Your task to perform on an android device: Search for Mexican restaurants on Maps Image 0: 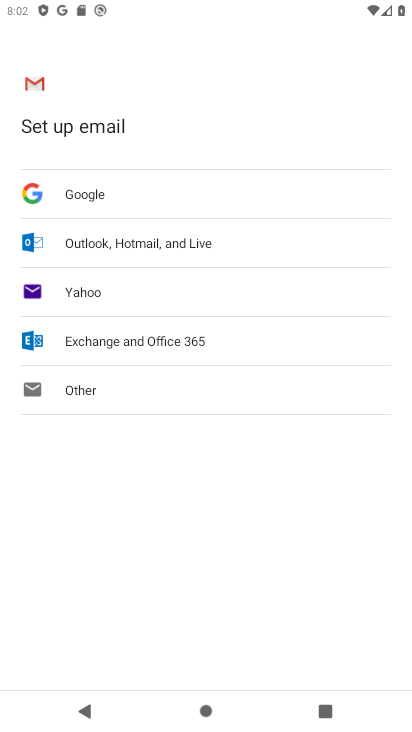
Step 0: press home button
Your task to perform on an android device: Search for Mexican restaurants on Maps Image 1: 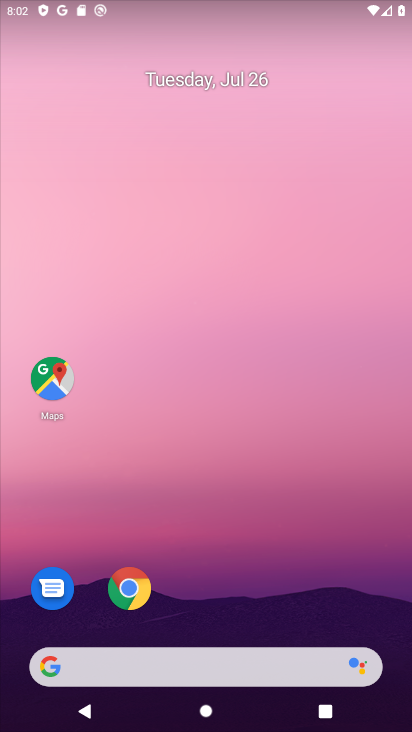
Step 1: click (39, 365)
Your task to perform on an android device: Search for Mexican restaurants on Maps Image 2: 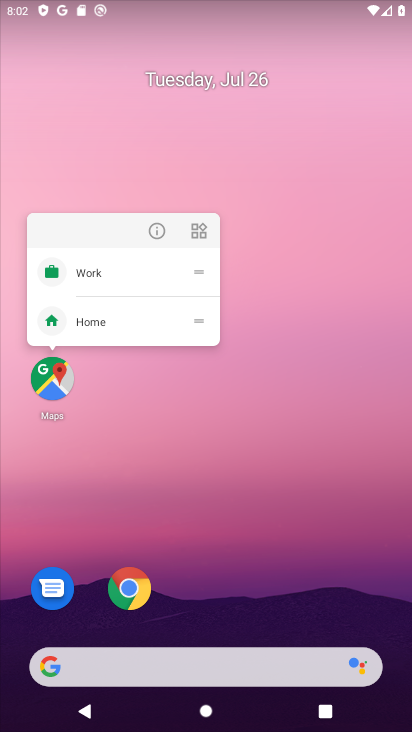
Step 2: click (39, 365)
Your task to perform on an android device: Search for Mexican restaurants on Maps Image 3: 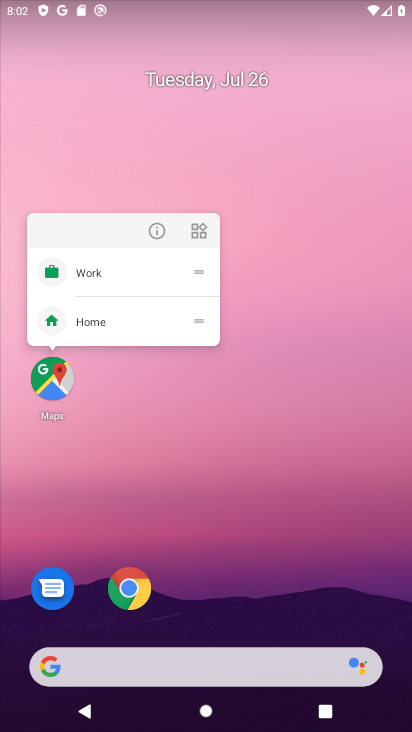
Step 3: click (46, 386)
Your task to perform on an android device: Search for Mexican restaurants on Maps Image 4: 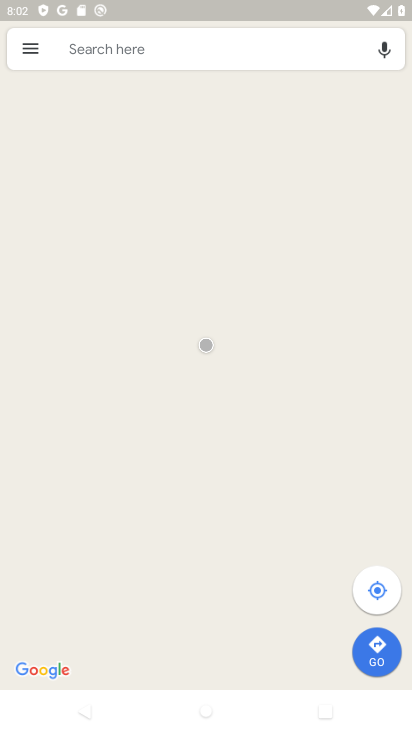
Step 4: click (99, 45)
Your task to perform on an android device: Search for Mexican restaurants on Maps Image 5: 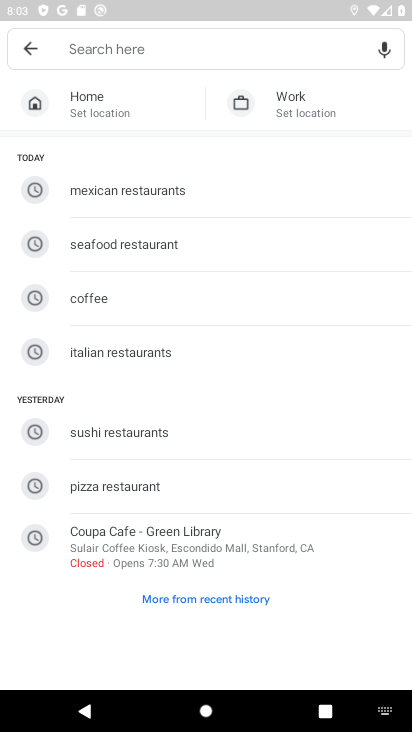
Step 5: type "Mexican restaurants"
Your task to perform on an android device: Search for Mexican restaurants on Maps Image 6: 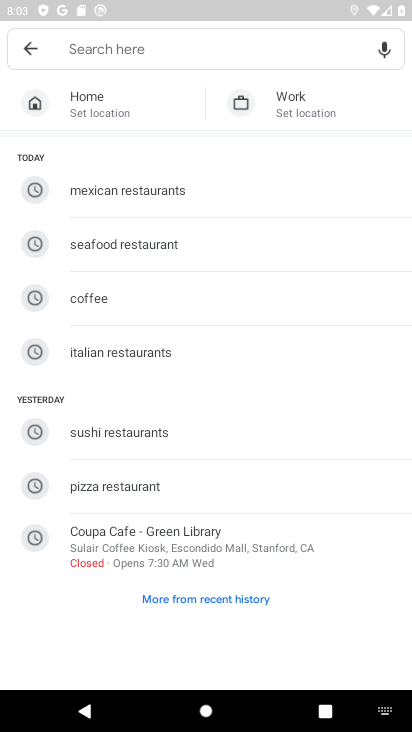
Step 6: click (85, 44)
Your task to perform on an android device: Search for Mexican restaurants on Maps Image 7: 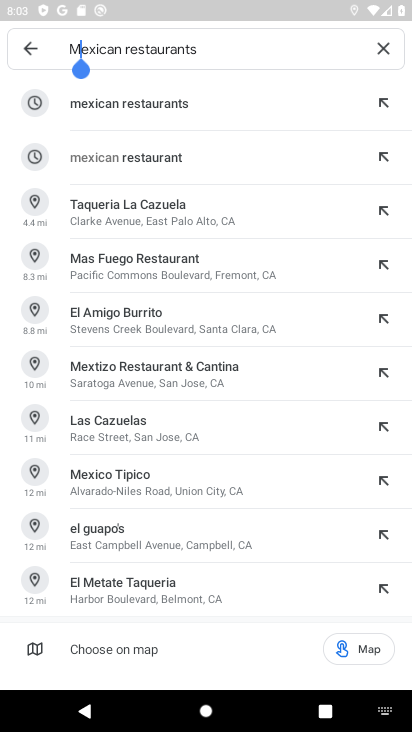
Step 7: click (100, 96)
Your task to perform on an android device: Search for Mexican restaurants on Maps Image 8: 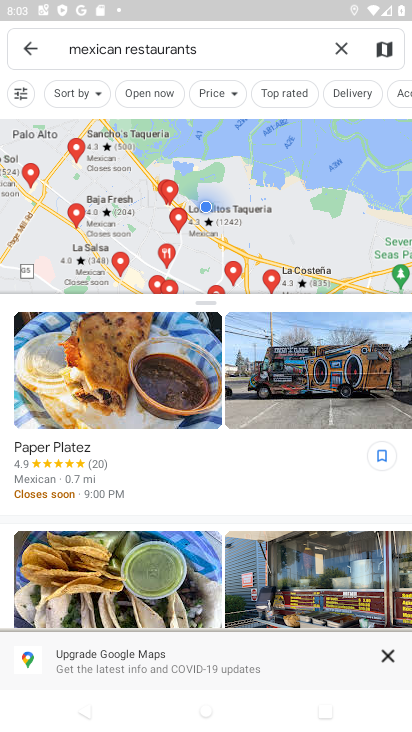
Step 8: task complete